Your task to perform on an android device: Search for seafood restaurants on Google Maps Image 0: 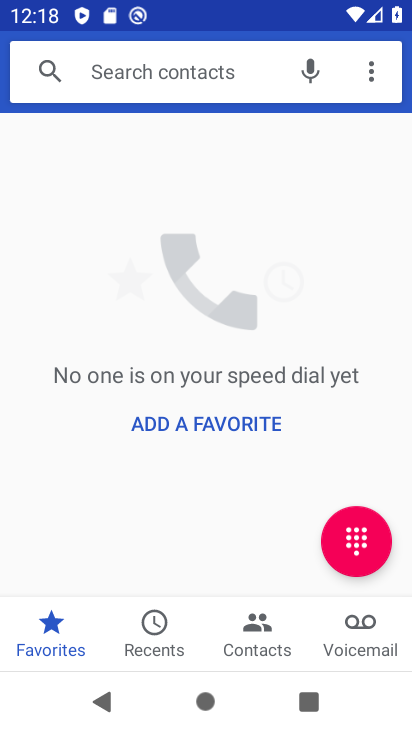
Step 0: press home button
Your task to perform on an android device: Search for seafood restaurants on Google Maps Image 1: 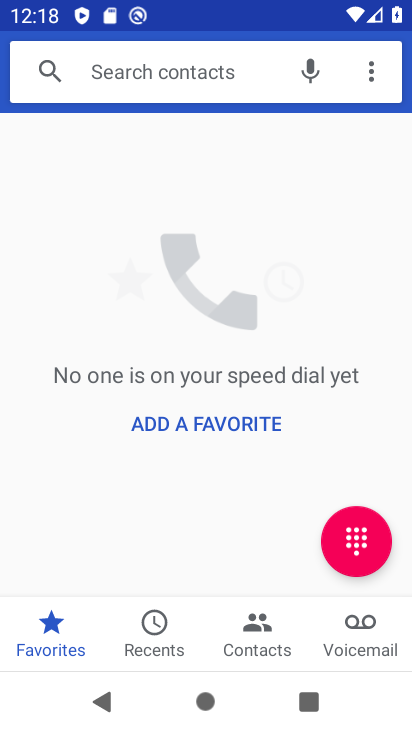
Step 1: press home button
Your task to perform on an android device: Search for seafood restaurants on Google Maps Image 2: 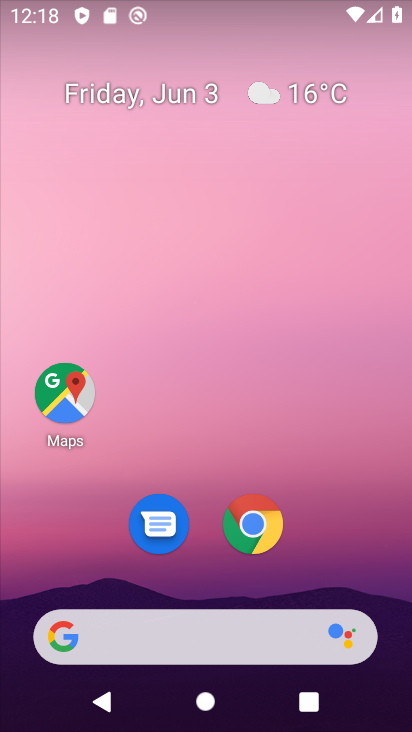
Step 2: click (73, 404)
Your task to perform on an android device: Search for seafood restaurants on Google Maps Image 3: 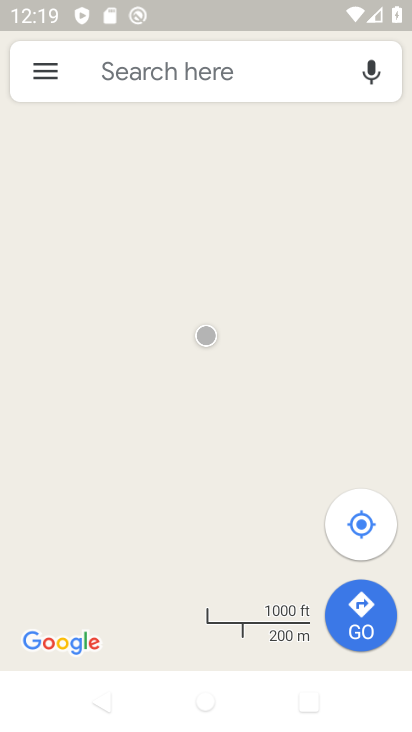
Step 3: click (224, 74)
Your task to perform on an android device: Search for seafood restaurants on Google Maps Image 4: 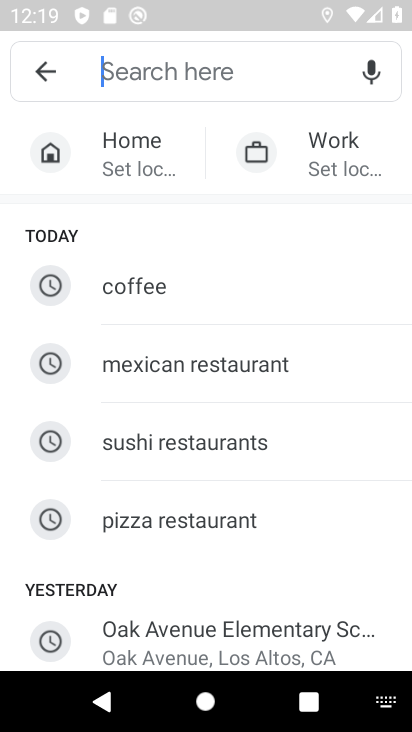
Step 4: type "seafood restaurants"
Your task to perform on an android device: Search for seafood restaurants on Google Maps Image 5: 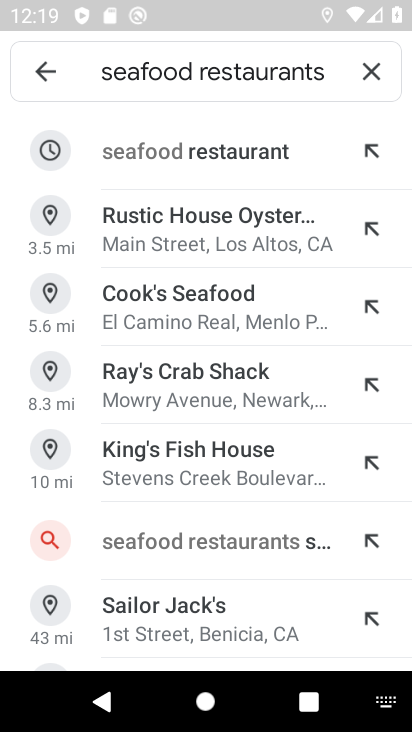
Step 5: click (239, 159)
Your task to perform on an android device: Search for seafood restaurants on Google Maps Image 6: 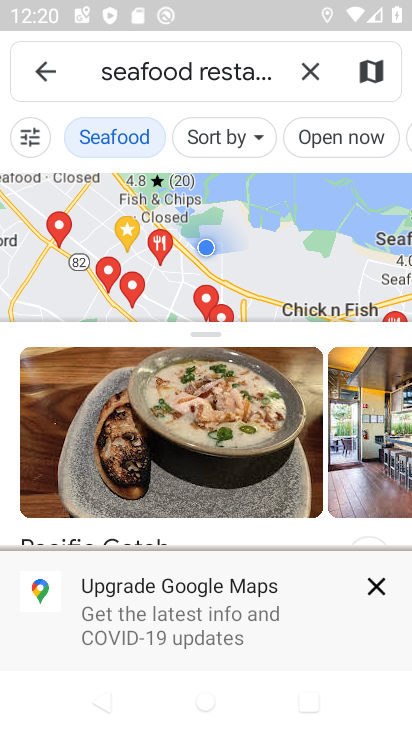
Step 6: task complete